Your task to perform on an android device: Search for the best rated running shoes on Nike.com Image 0: 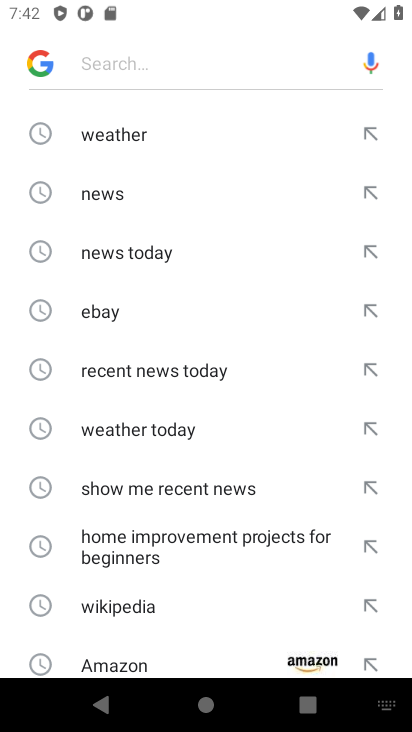
Step 0: press home button
Your task to perform on an android device: Search for the best rated running shoes on Nike.com Image 1: 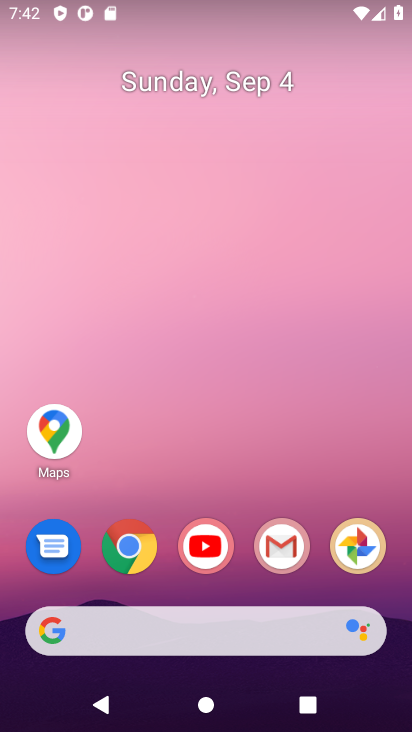
Step 1: click (132, 554)
Your task to perform on an android device: Search for the best rated running shoes on Nike.com Image 2: 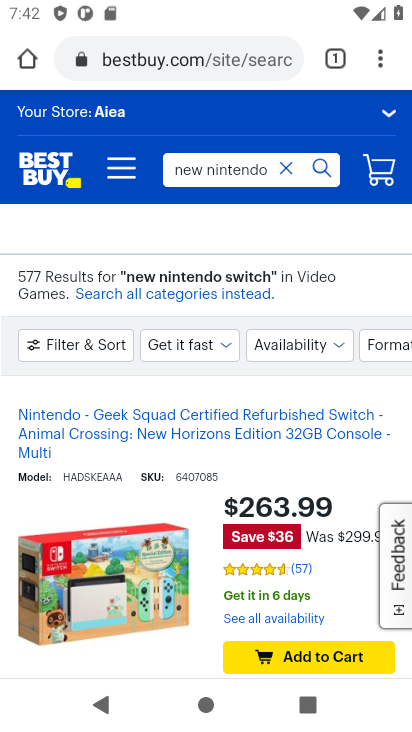
Step 2: click (208, 69)
Your task to perform on an android device: Search for the best rated running shoes on Nike.com Image 3: 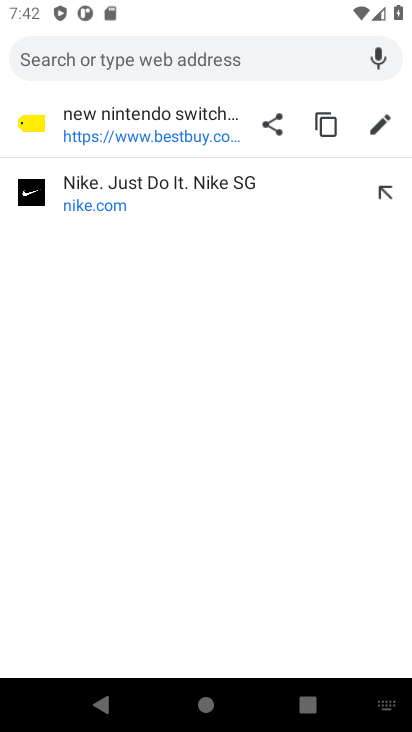
Step 3: click (109, 208)
Your task to perform on an android device: Search for the best rated running shoes on Nike.com Image 4: 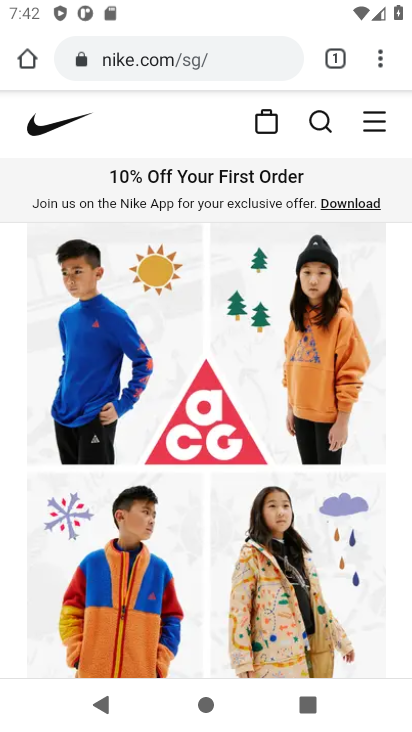
Step 4: click (318, 121)
Your task to perform on an android device: Search for the best rated running shoes on Nike.com Image 5: 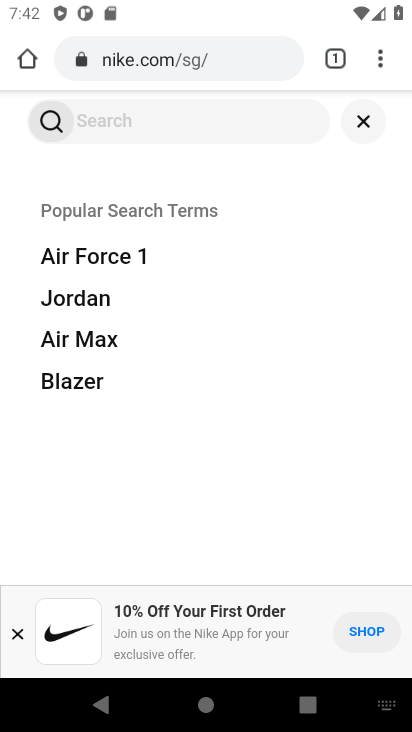
Step 5: type "best rated running shoes"
Your task to perform on an android device: Search for the best rated running shoes on Nike.com Image 6: 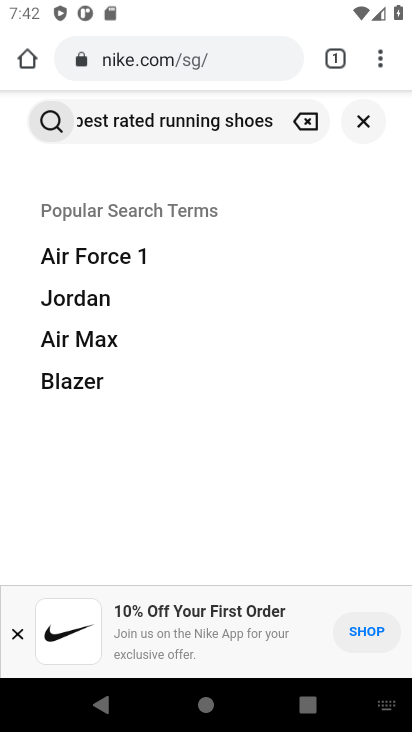
Step 6: click (44, 115)
Your task to perform on an android device: Search for the best rated running shoes on Nike.com Image 7: 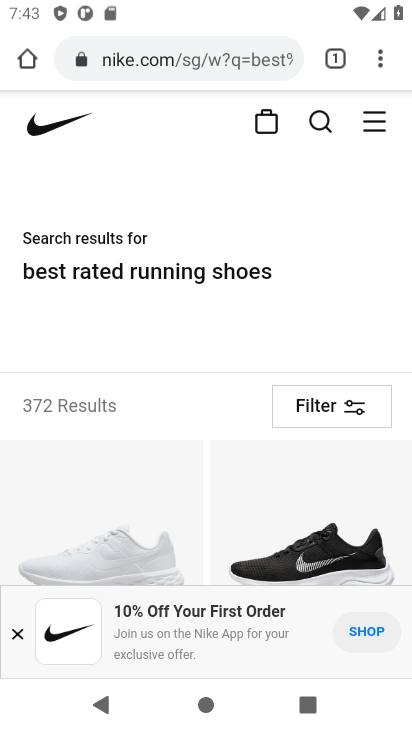
Step 7: task complete